Your task to perform on an android device: Turn off the flashlight Image 0: 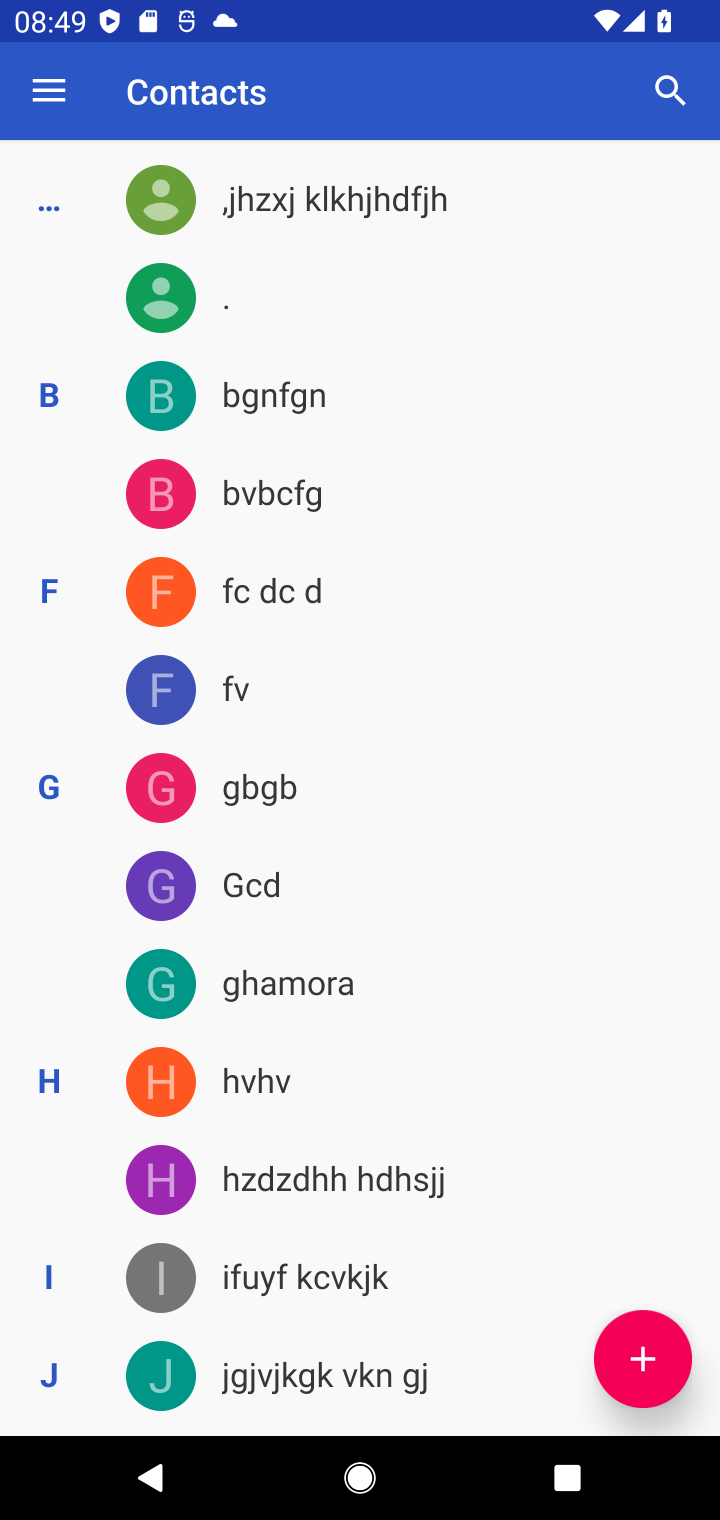
Step 0: press home button
Your task to perform on an android device: Turn off the flashlight Image 1: 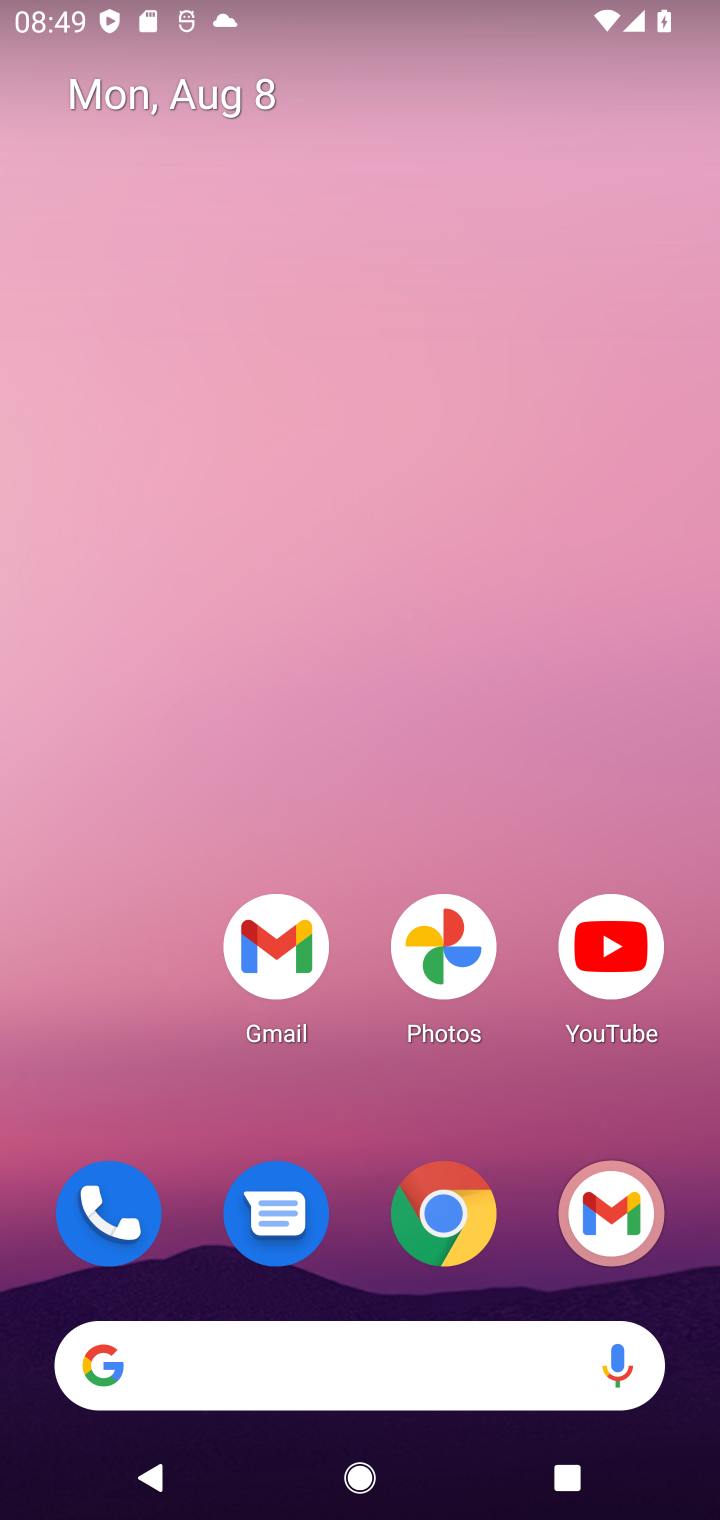
Step 1: drag from (465, 1073) to (430, 445)
Your task to perform on an android device: Turn off the flashlight Image 2: 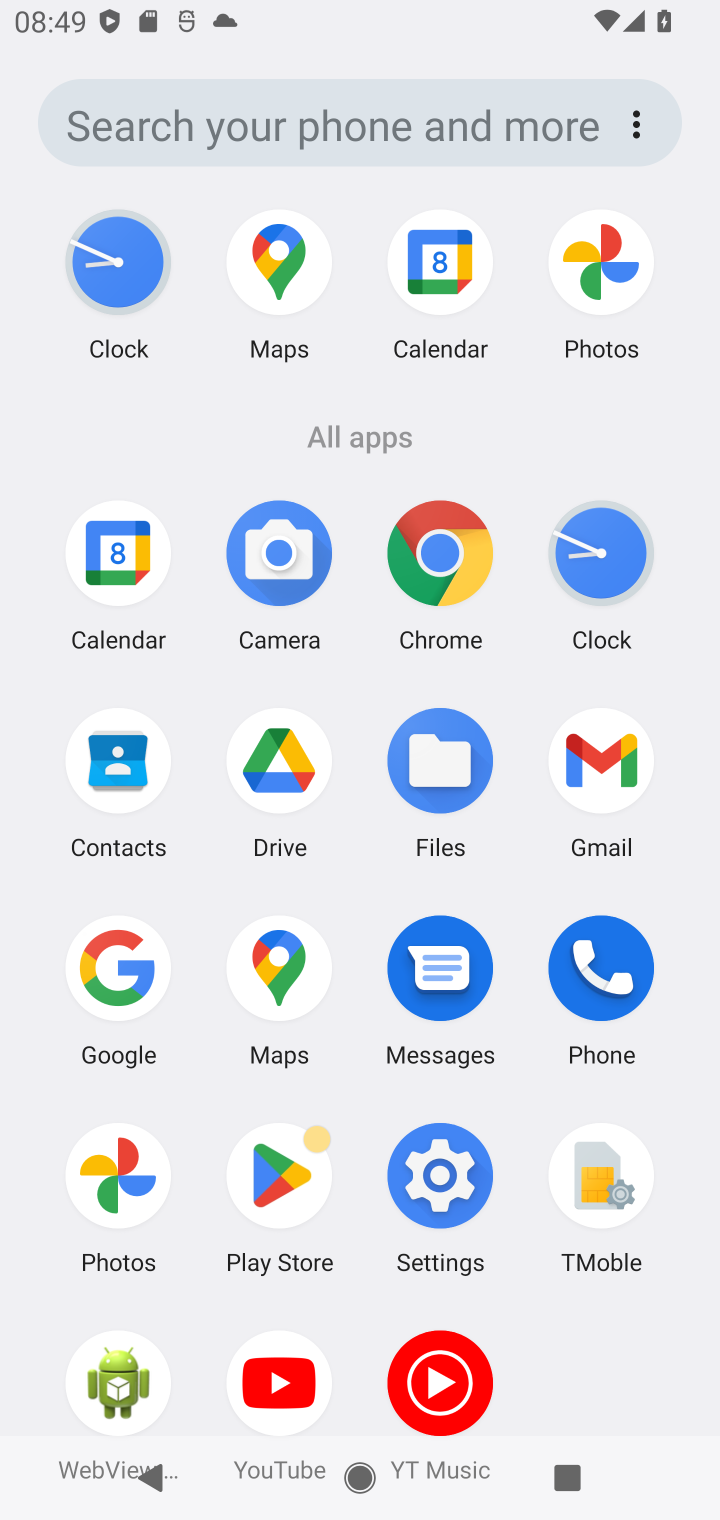
Step 2: click (448, 1185)
Your task to perform on an android device: Turn off the flashlight Image 3: 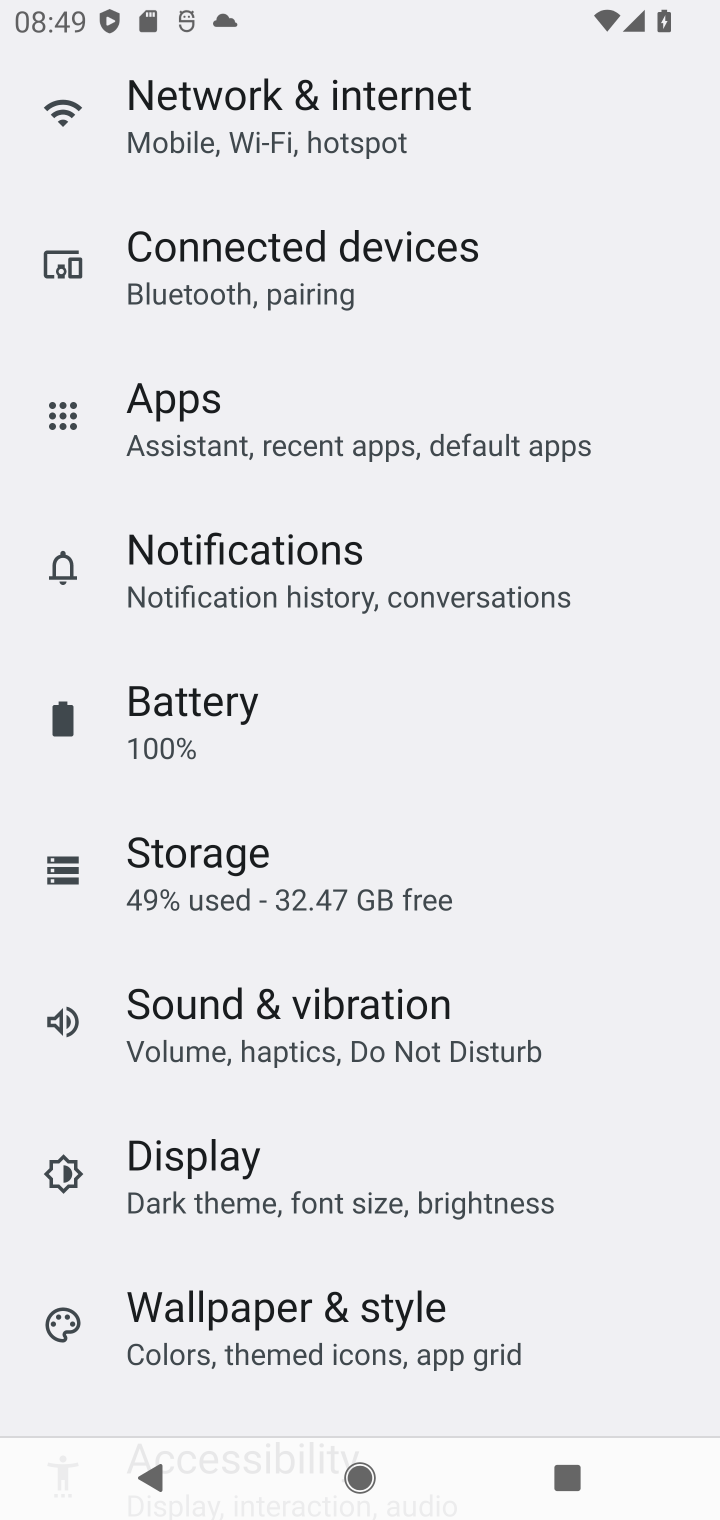
Step 3: task complete